Your task to perform on an android device: open app "Skype" (install if not already installed) and enter user name: "rumor@gmail.com" and password: "kinsman" Image 0: 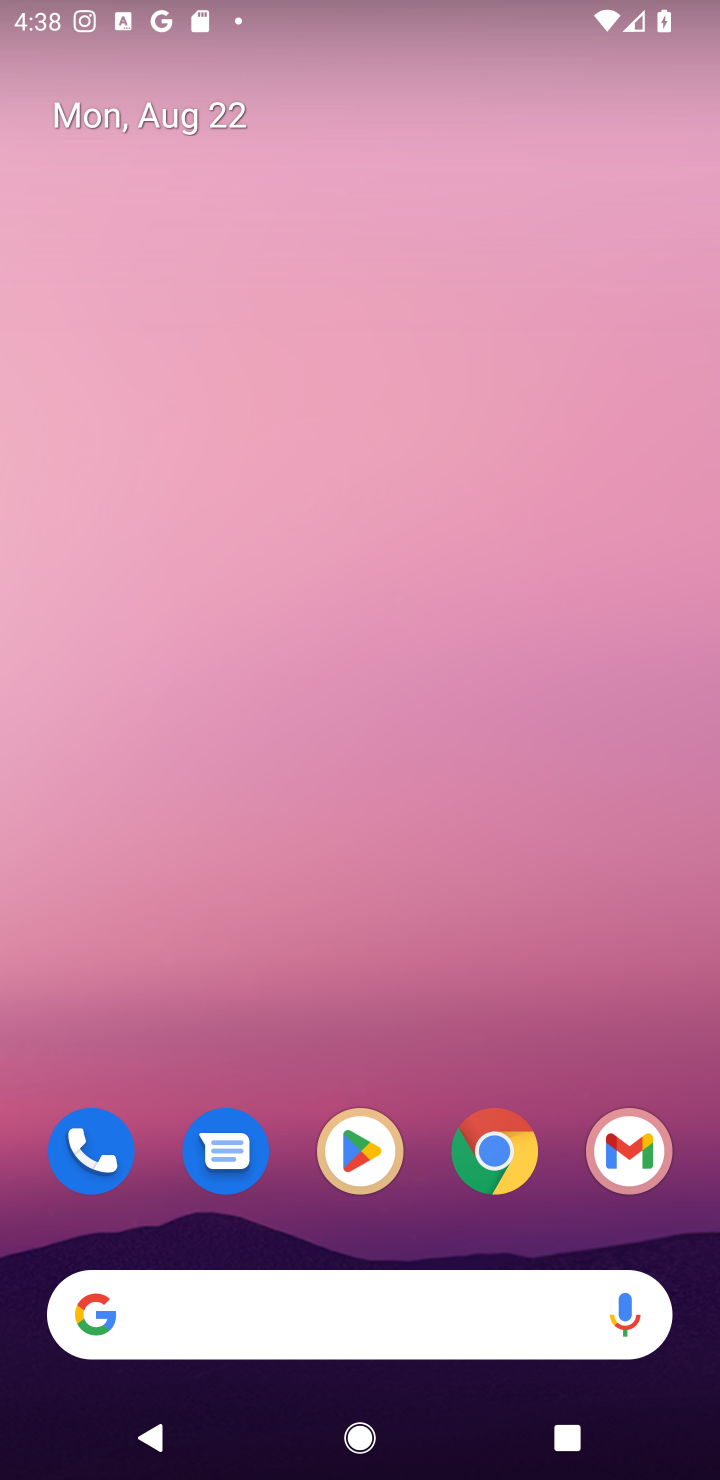
Step 0: press home button
Your task to perform on an android device: open app "Skype" (install if not already installed) and enter user name: "rumor@gmail.com" and password: "kinsman" Image 1: 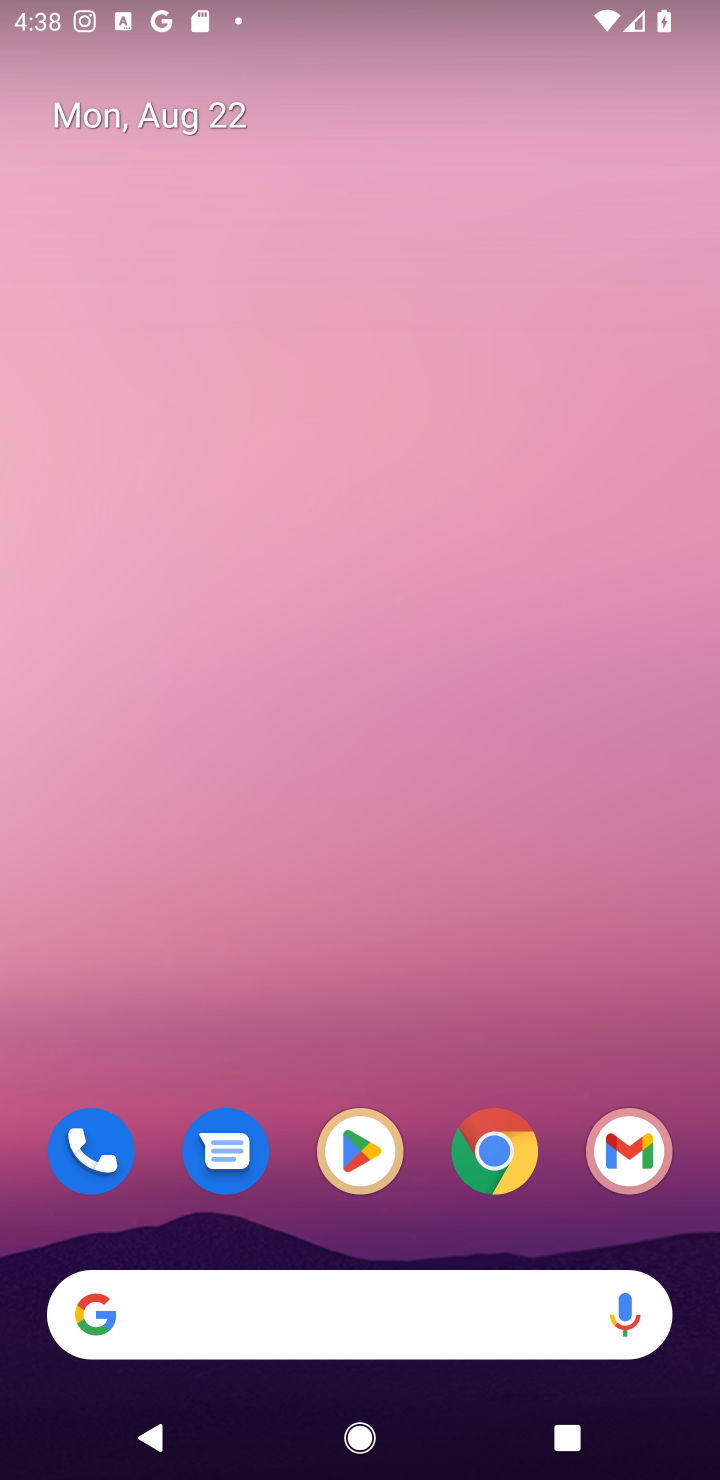
Step 1: click (371, 1157)
Your task to perform on an android device: open app "Skype" (install if not already installed) and enter user name: "rumor@gmail.com" and password: "kinsman" Image 2: 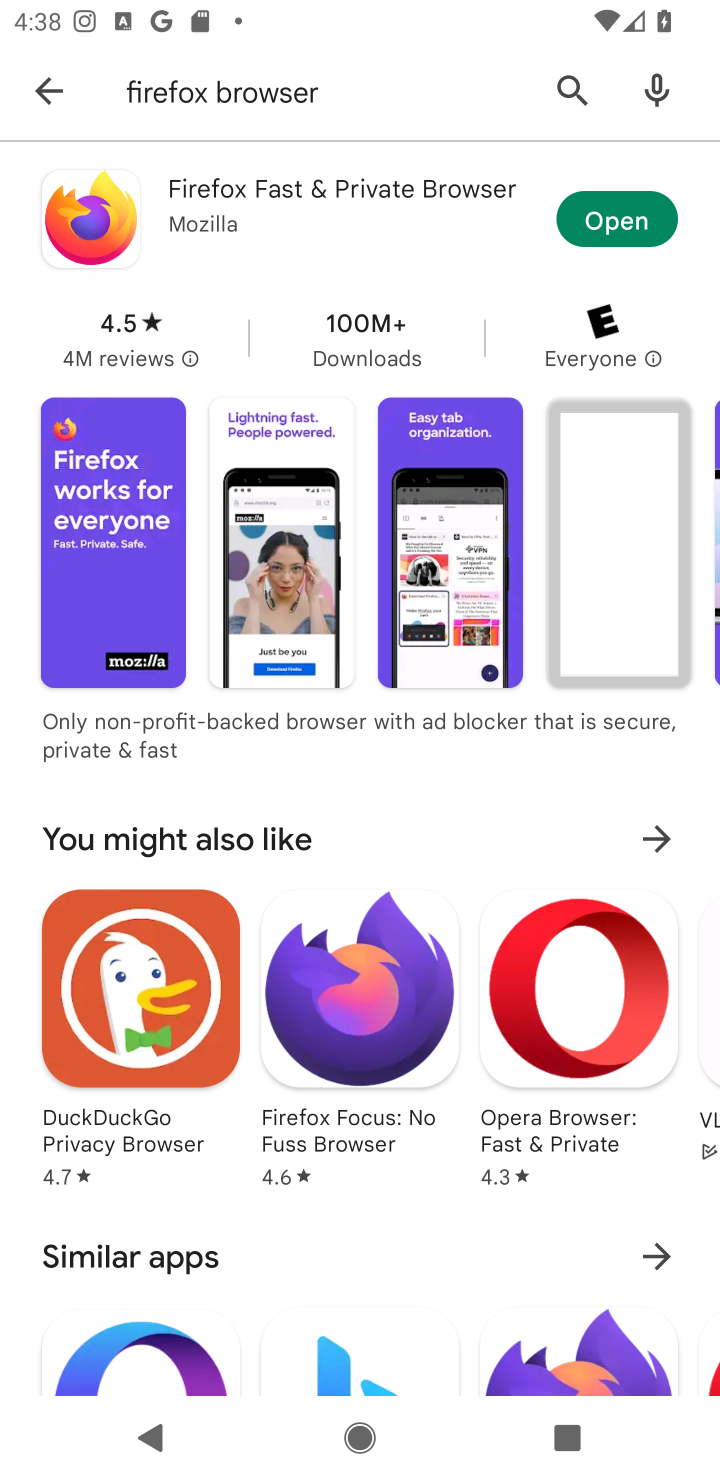
Step 2: click (548, 77)
Your task to perform on an android device: open app "Skype" (install if not already installed) and enter user name: "rumor@gmail.com" and password: "kinsman" Image 3: 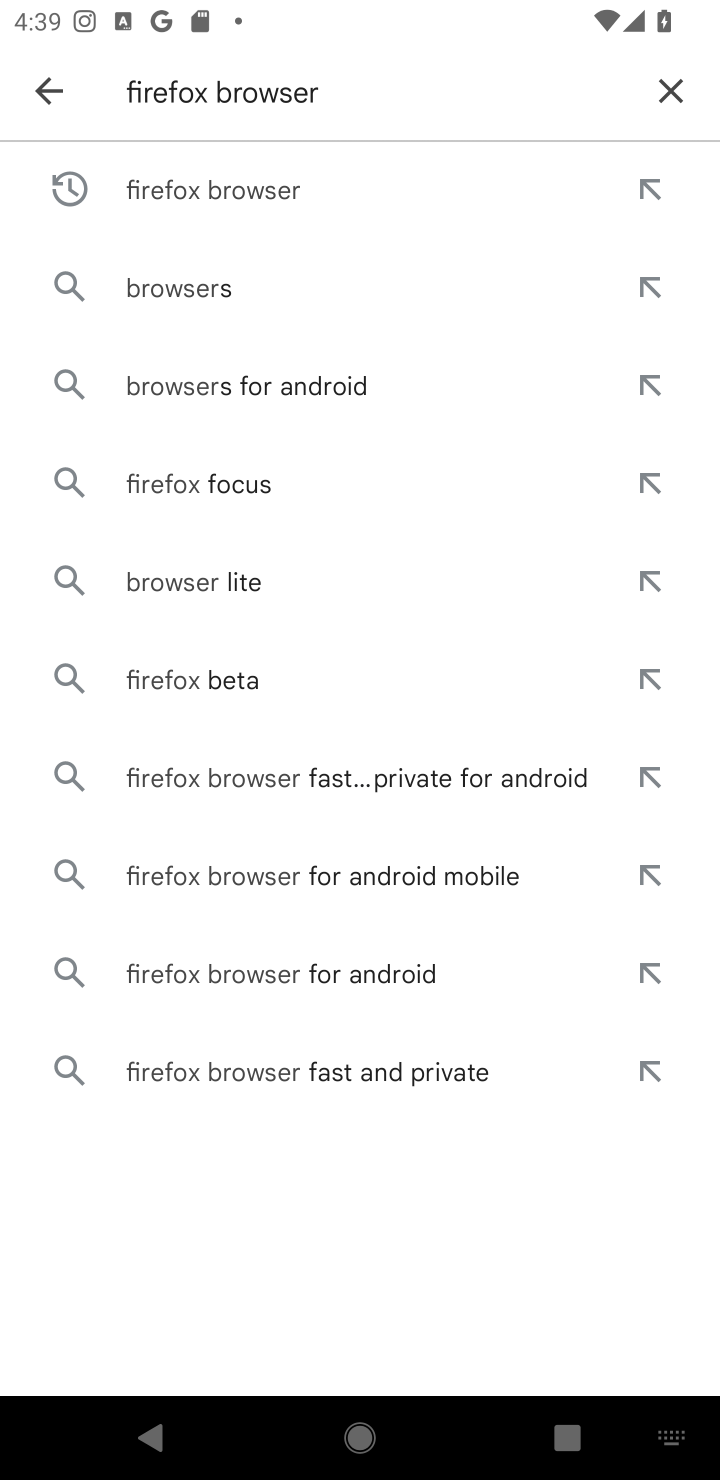
Step 3: click (676, 76)
Your task to perform on an android device: open app "Skype" (install if not already installed) and enter user name: "rumor@gmail.com" and password: "kinsman" Image 4: 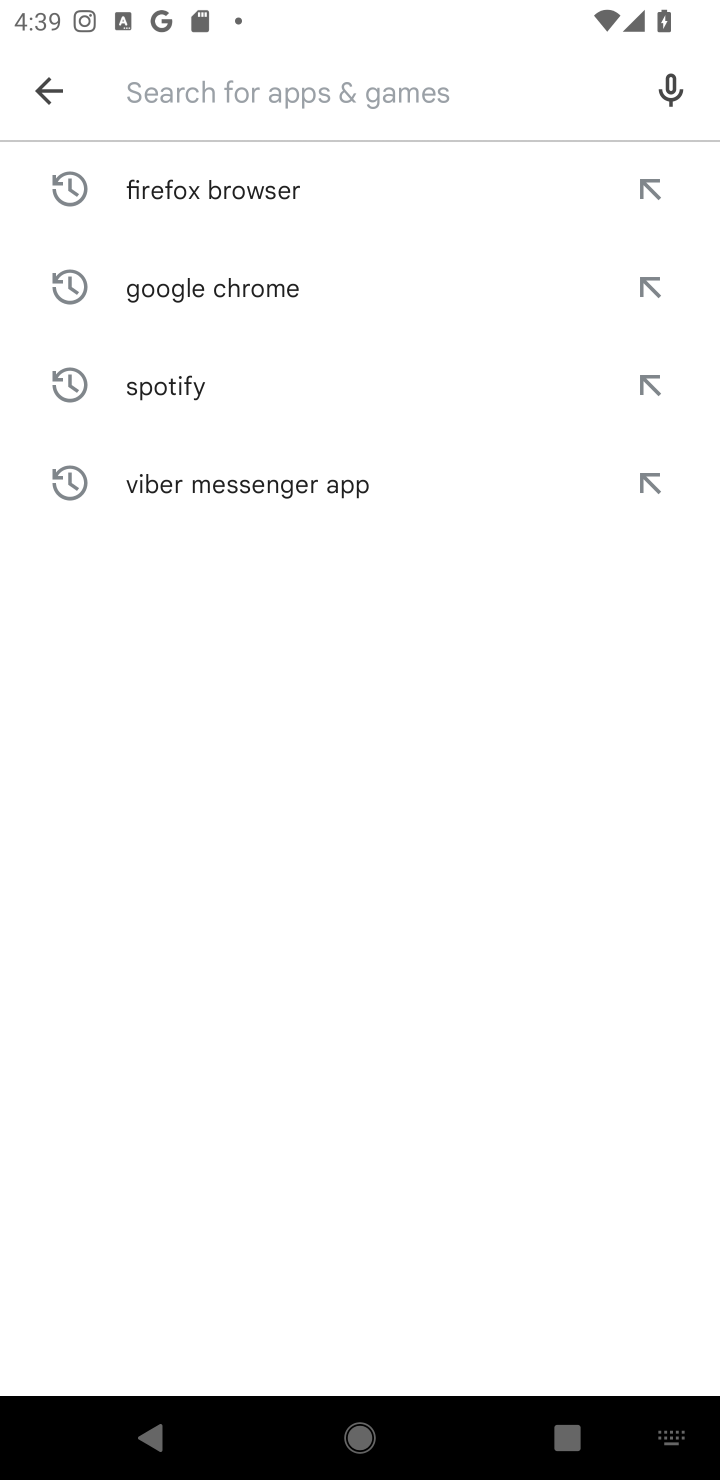
Step 4: type "Skype"
Your task to perform on an android device: open app "Skype" (install if not already installed) and enter user name: "rumor@gmail.com" and password: "kinsman" Image 5: 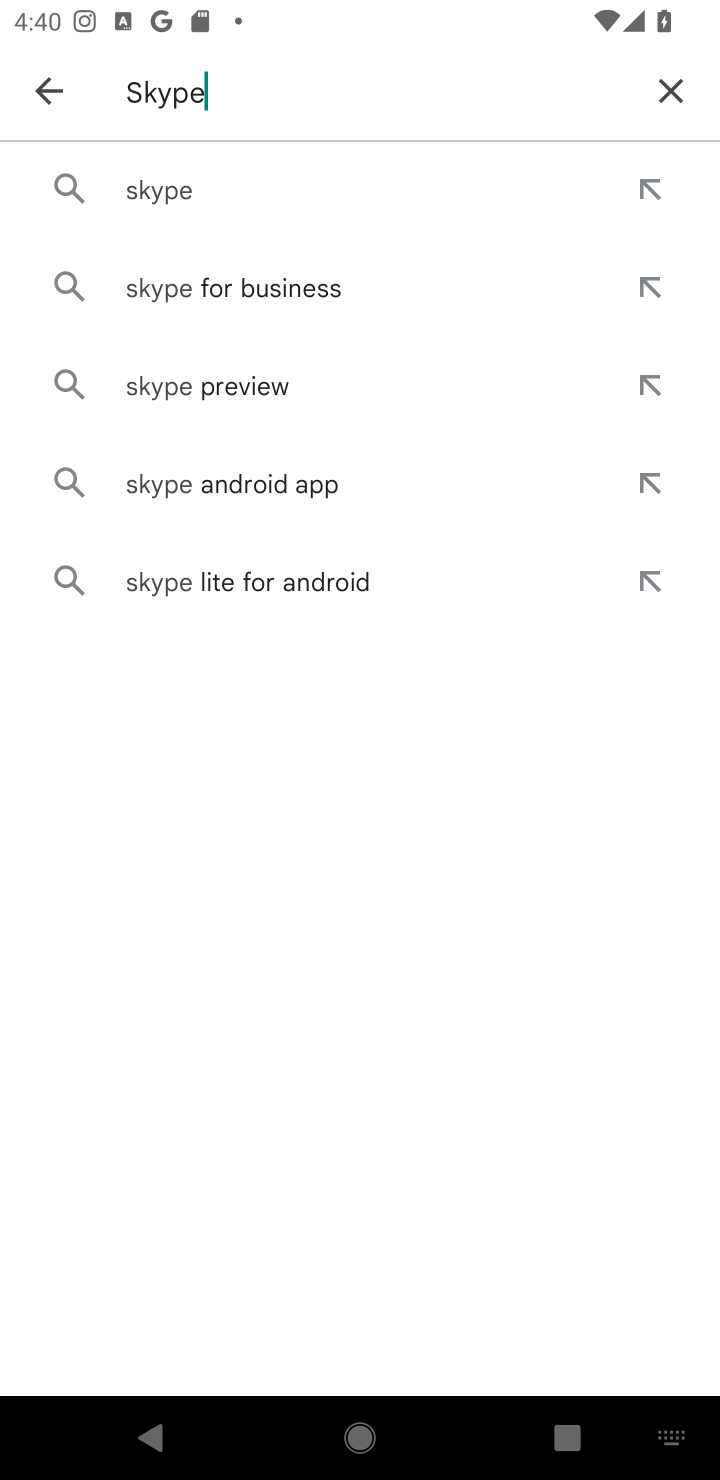
Step 5: click (202, 191)
Your task to perform on an android device: open app "Skype" (install if not already installed) and enter user name: "rumor@gmail.com" and password: "kinsman" Image 6: 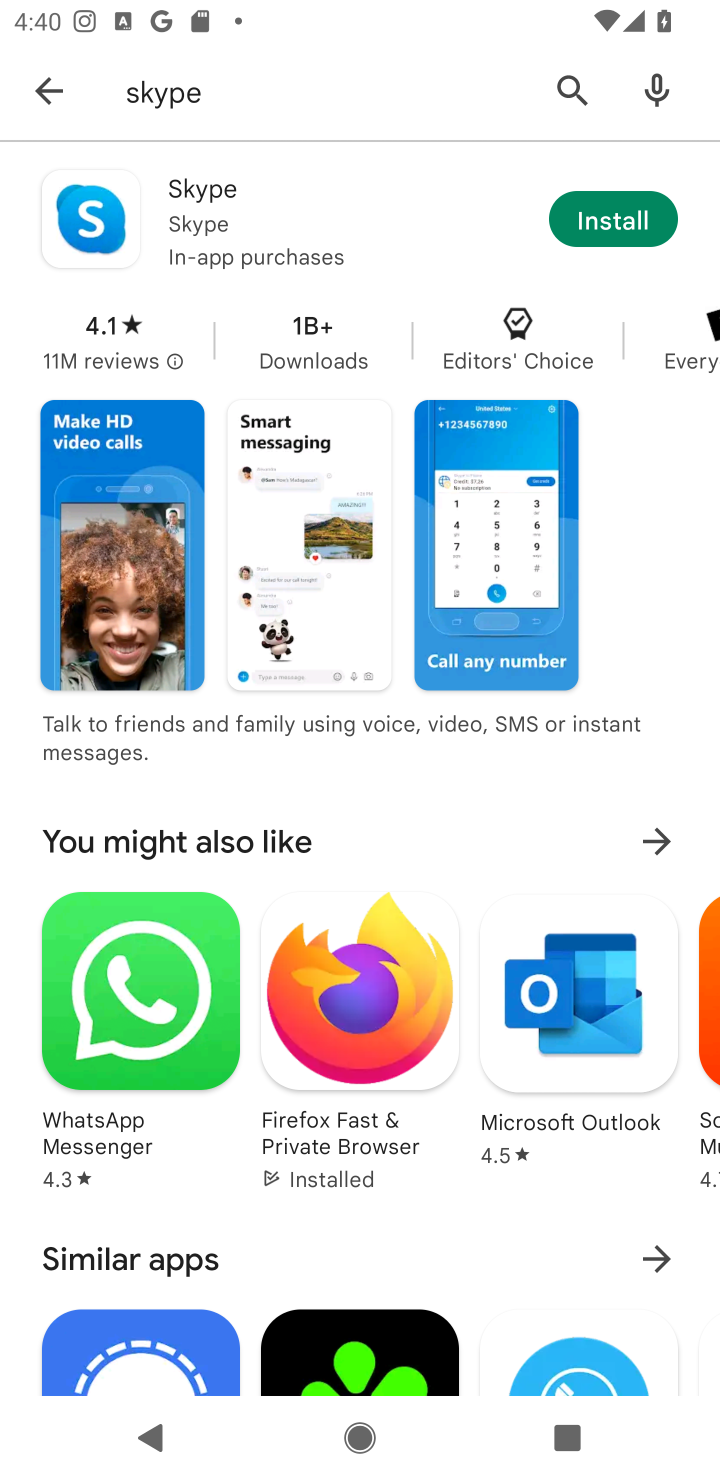
Step 6: click (625, 206)
Your task to perform on an android device: open app "Skype" (install if not already installed) and enter user name: "rumor@gmail.com" and password: "kinsman" Image 7: 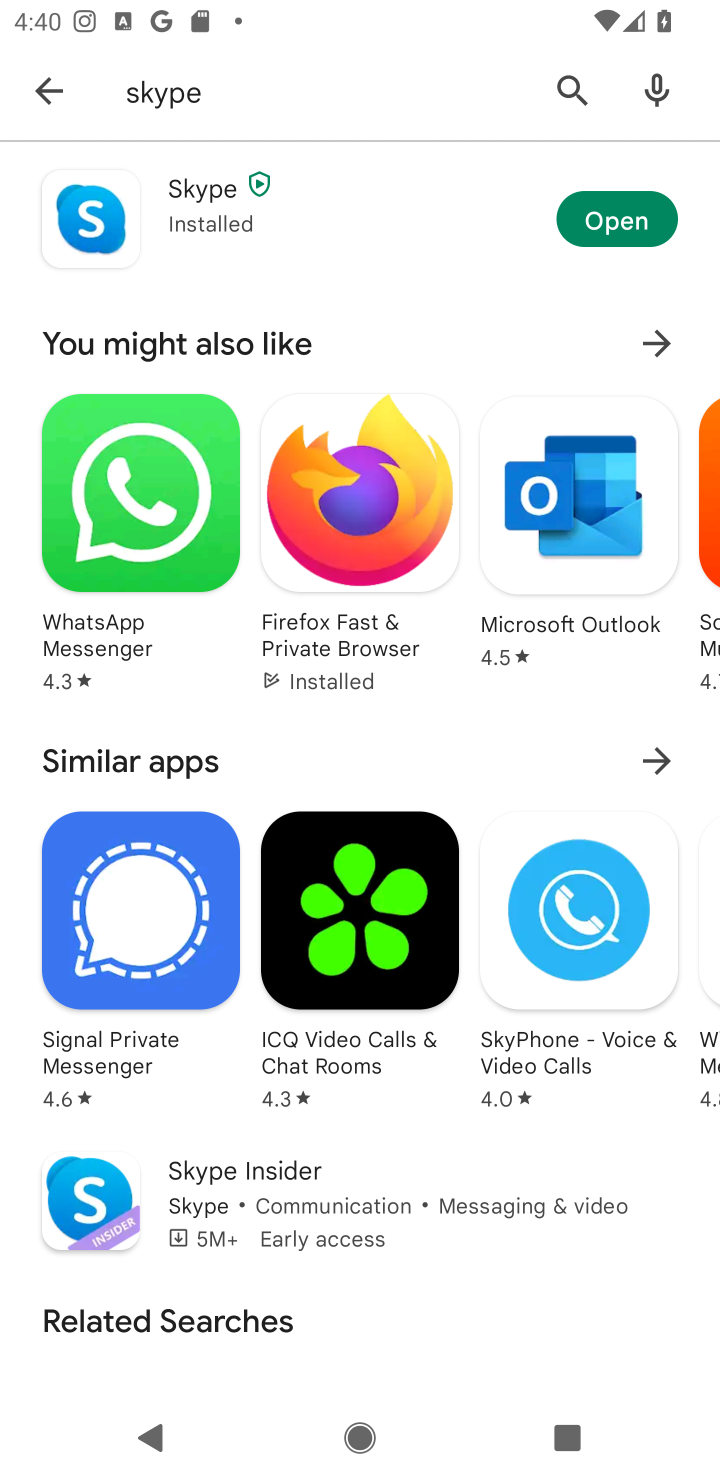
Step 7: click (598, 217)
Your task to perform on an android device: open app "Skype" (install if not already installed) and enter user name: "rumor@gmail.com" and password: "kinsman" Image 8: 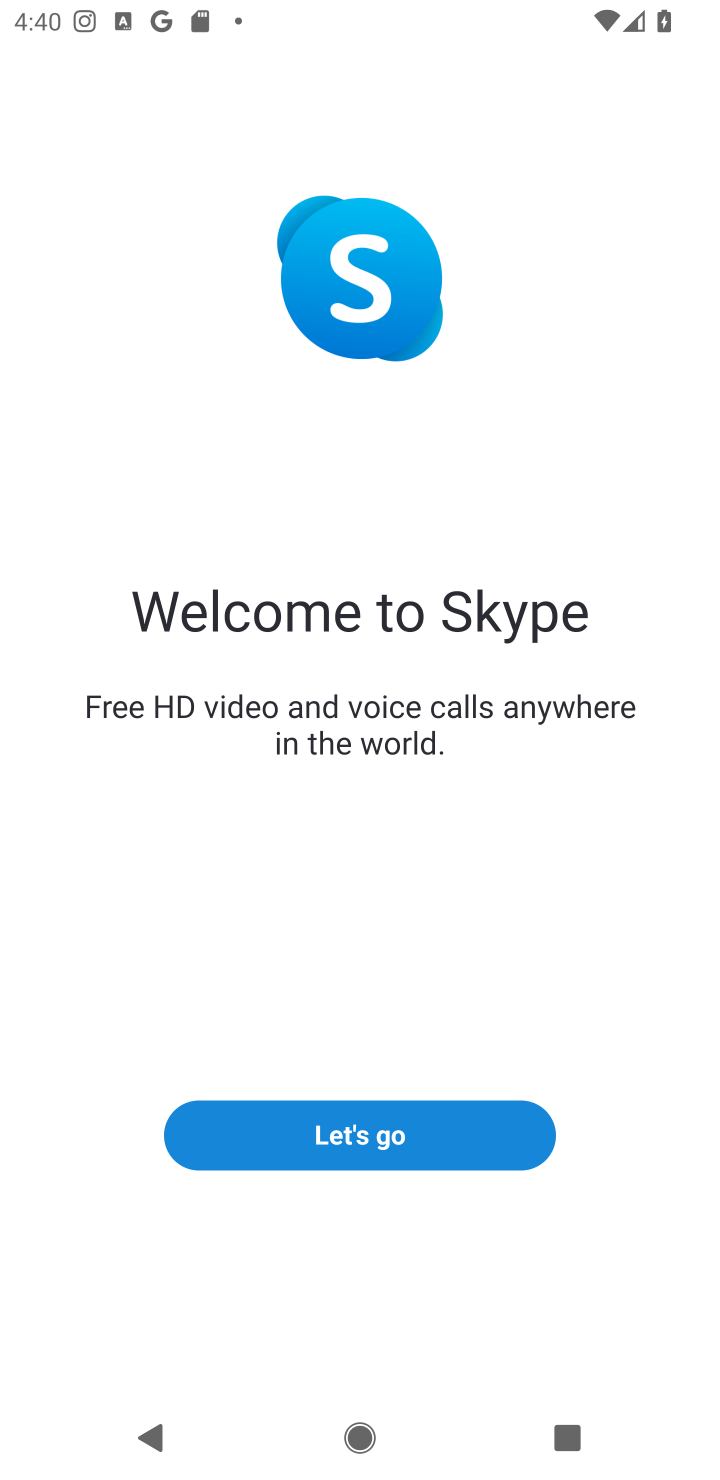
Step 8: click (357, 1136)
Your task to perform on an android device: open app "Skype" (install if not already installed) and enter user name: "rumor@gmail.com" and password: "kinsman" Image 9: 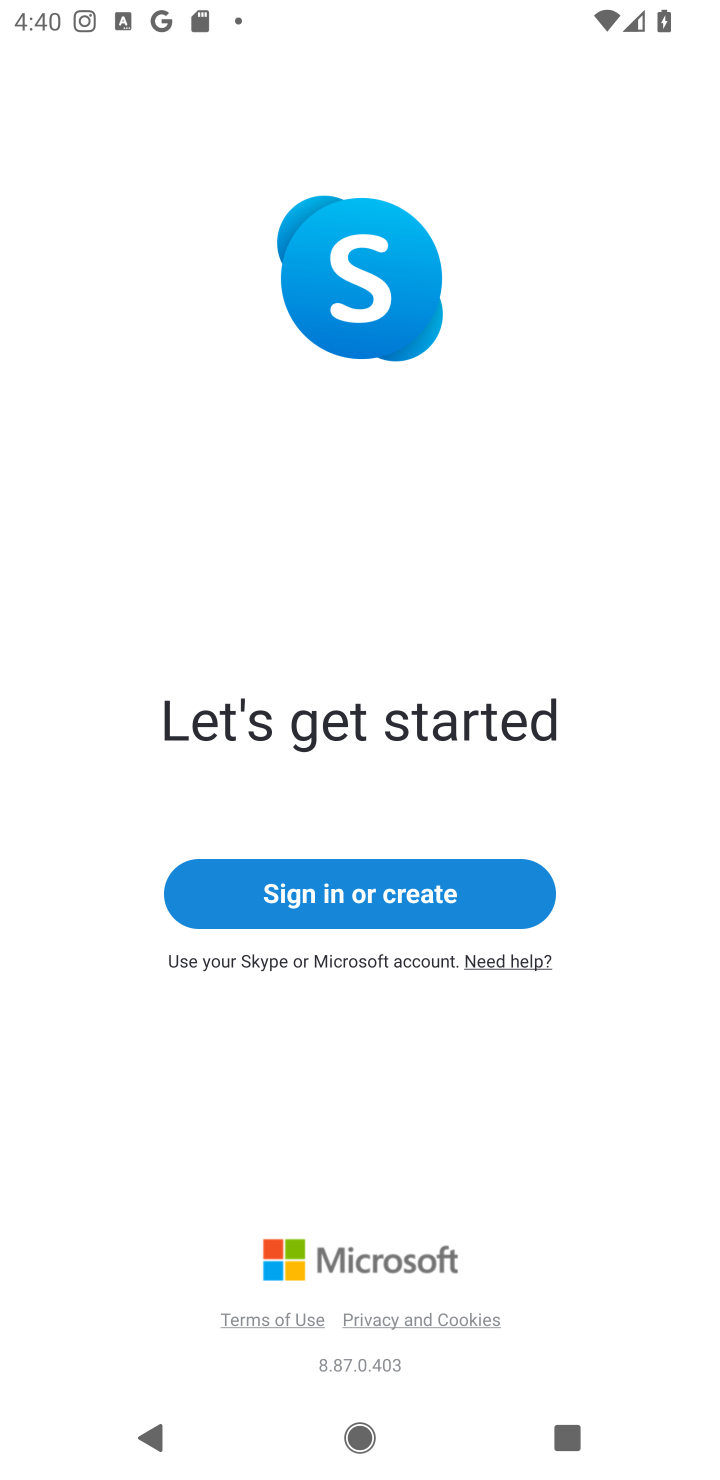
Step 9: click (287, 902)
Your task to perform on an android device: open app "Skype" (install if not already installed) and enter user name: "rumor@gmail.com" and password: "kinsman" Image 10: 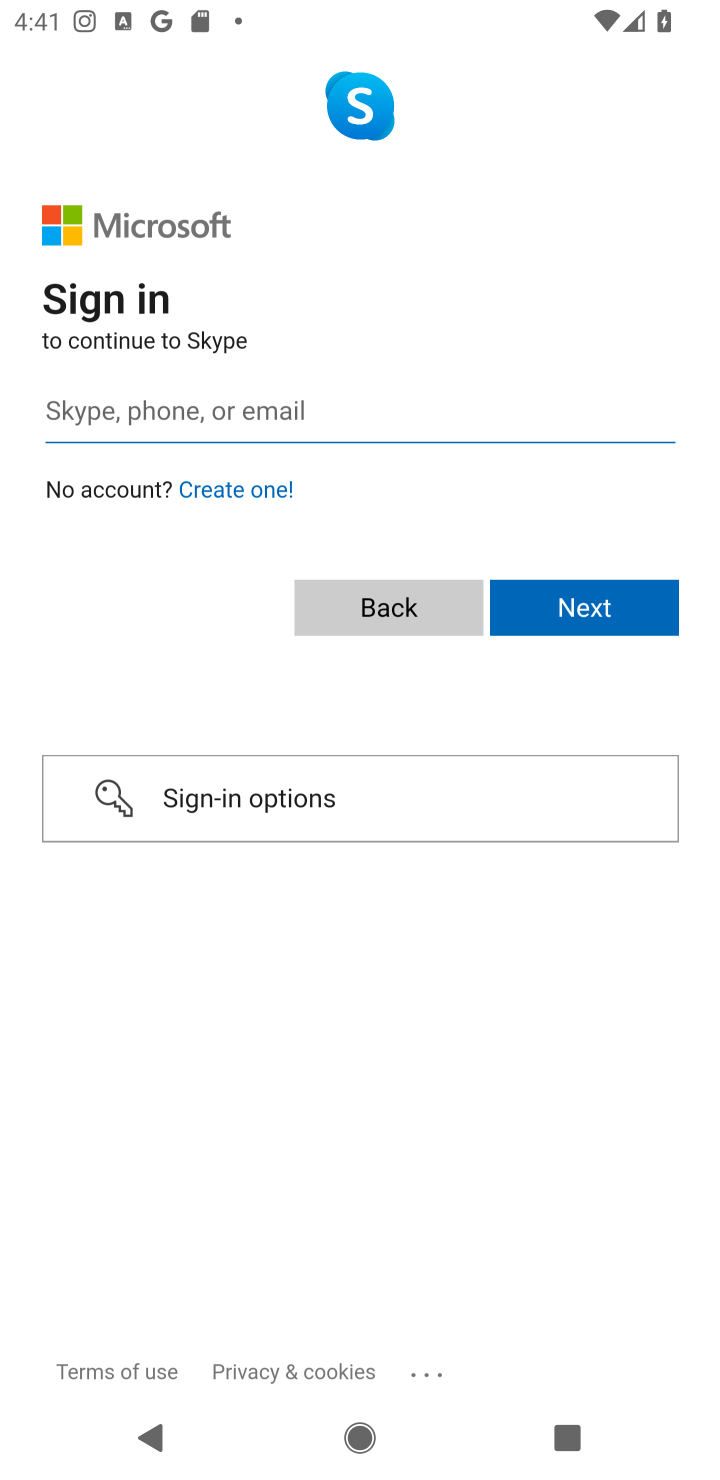
Step 10: click (73, 386)
Your task to perform on an android device: open app "Skype" (install if not already installed) and enter user name: "rumor@gmail.com" and password: "kinsman" Image 11: 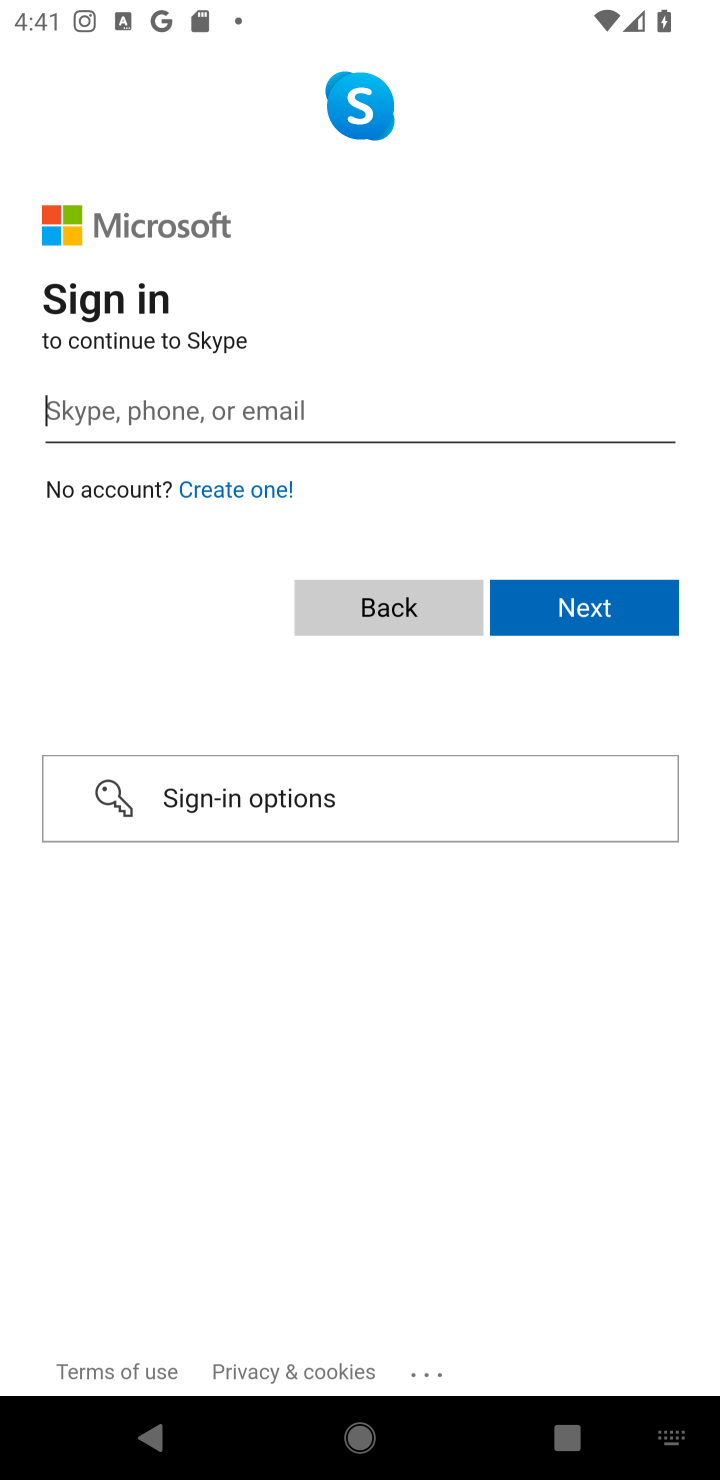
Step 11: type "rumor@gmail.com"
Your task to perform on an android device: open app "Skype" (install if not already installed) and enter user name: "rumor@gmail.com" and password: "kinsman" Image 12: 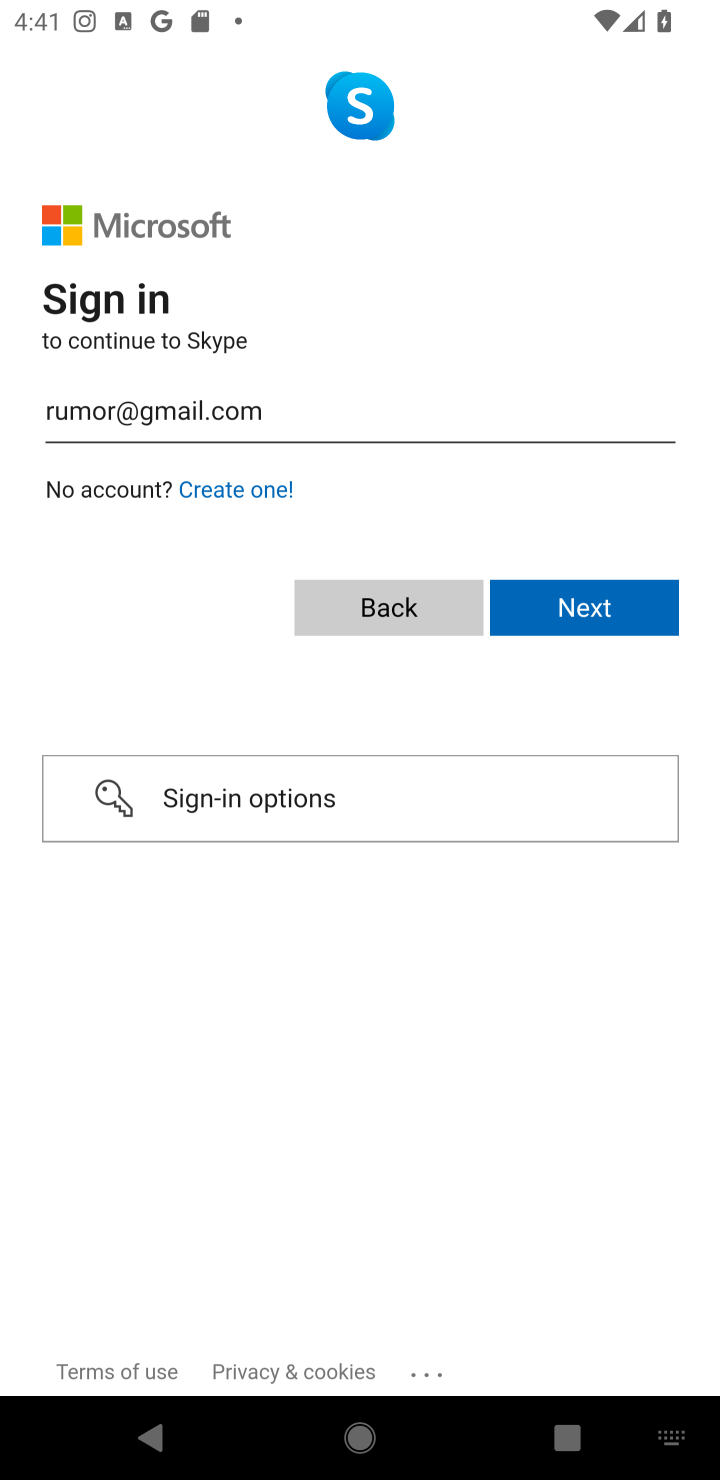
Step 12: click (630, 597)
Your task to perform on an android device: open app "Skype" (install if not already installed) and enter user name: "rumor@gmail.com" and password: "kinsman" Image 13: 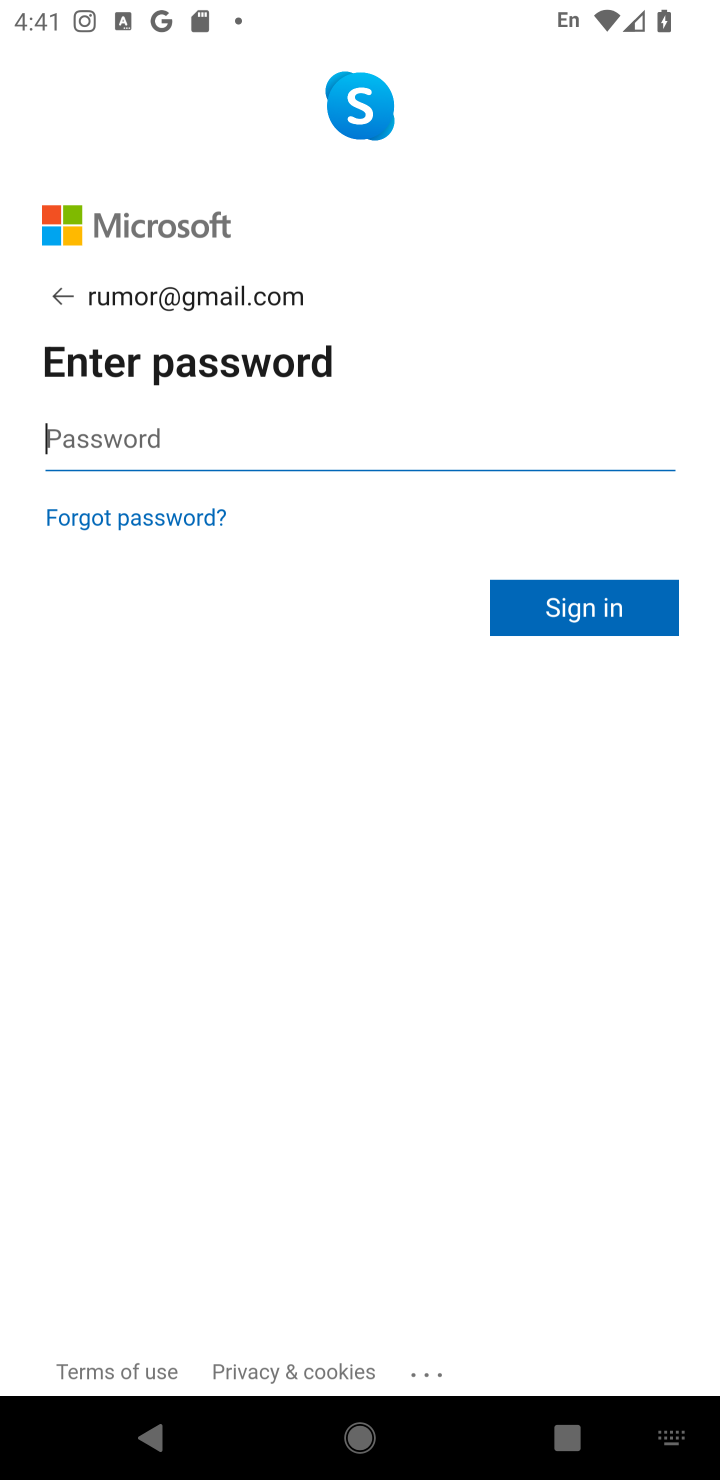
Step 13: type "kinsman"
Your task to perform on an android device: open app "Skype" (install if not already installed) and enter user name: "rumor@gmail.com" and password: "kinsman" Image 14: 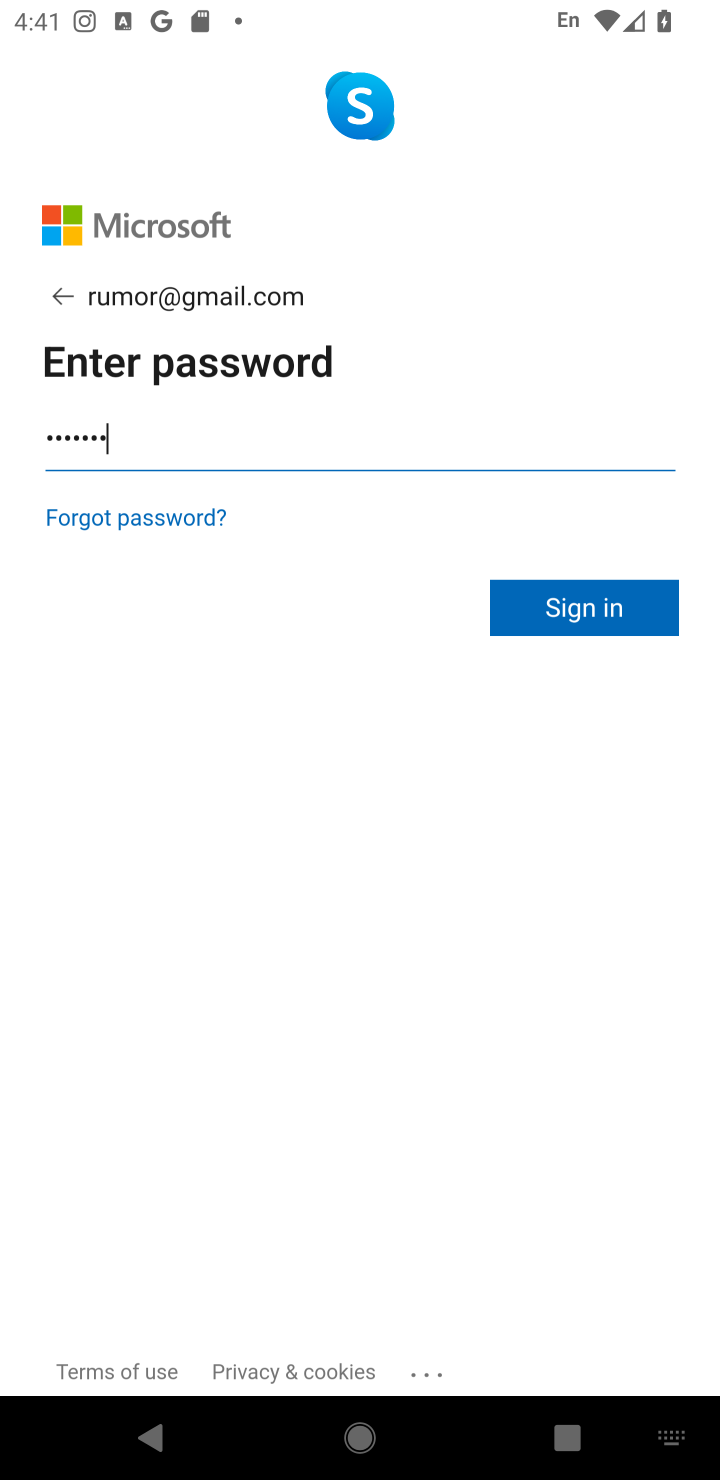
Step 14: task complete